Your task to perform on an android device: When is my next appointment? Image 0: 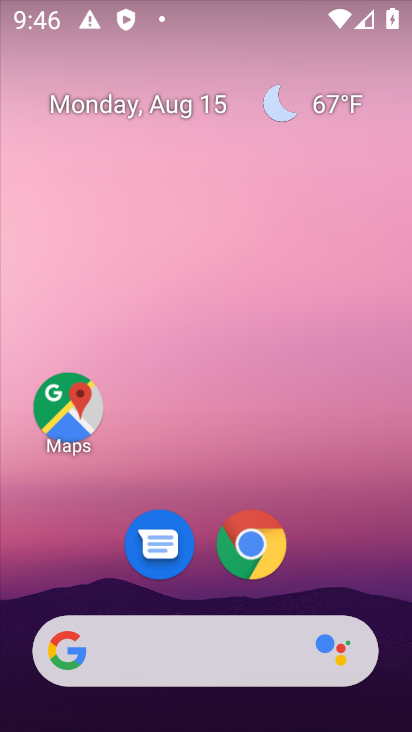
Step 0: drag from (211, 633) to (208, 20)
Your task to perform on an android device: When is my next appointment? Image 1: 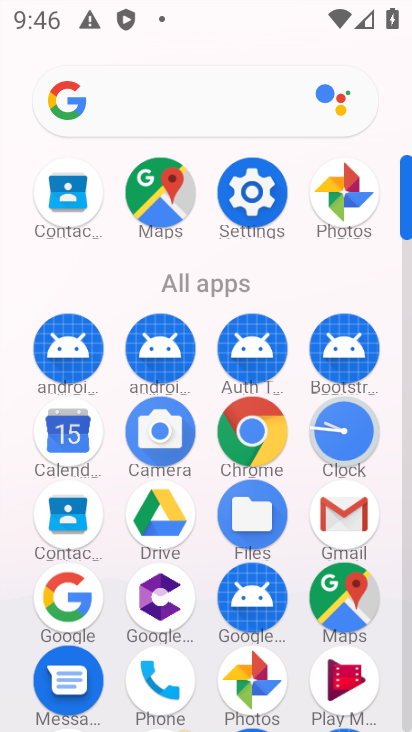
Step 1: click (263, 185)
Your task to perform on an android device: When is my next appointment? Image 2: 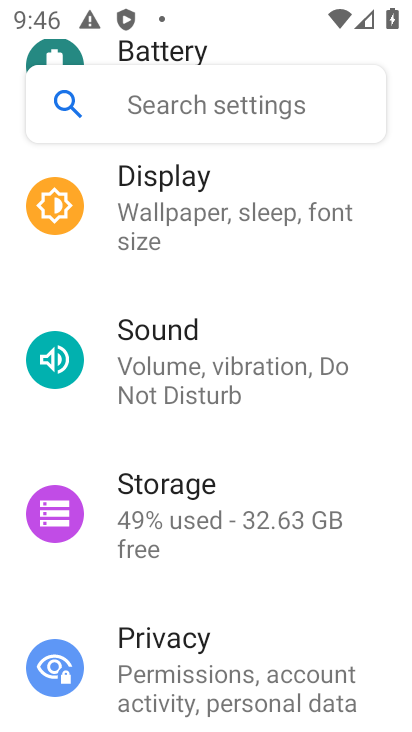
Step 2: press home button
Your task to perform on an android device: When is my next appointment? Image 3: 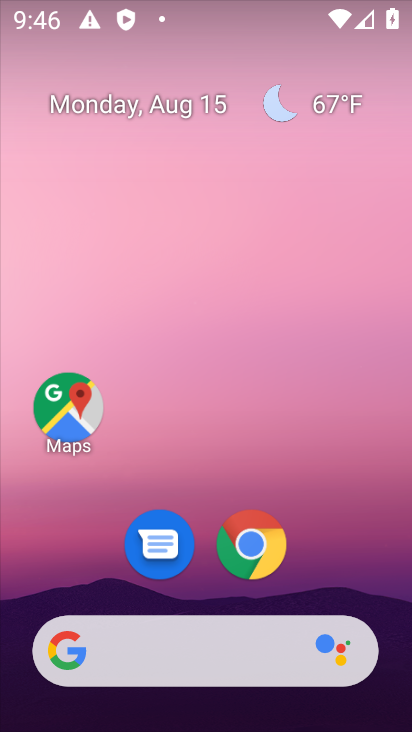
Step 3: drag from (216, 526) to (220, 191)
Your task to perform on an android device: When is my next appointment? Image 4: 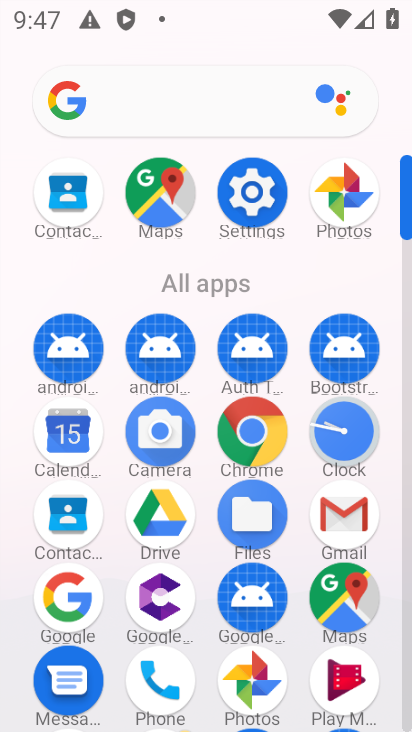
Step 4: click (74, 436)
Your task to perform on an android device: When is my next appointment? Image 5: 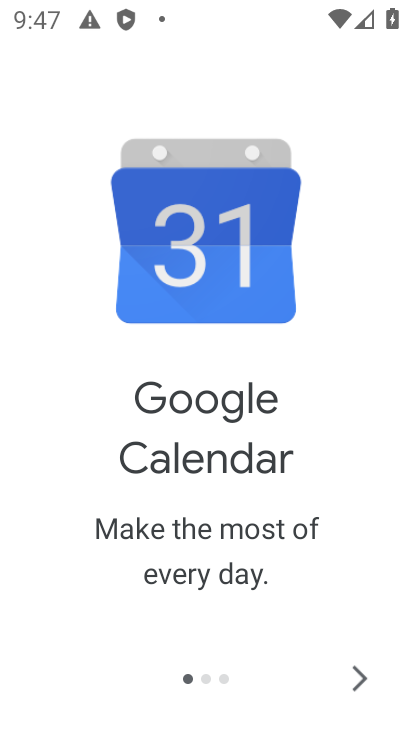
Step 5: click (365, 683)
Your task to perform on an android device: When is my next appointment? Image 6: 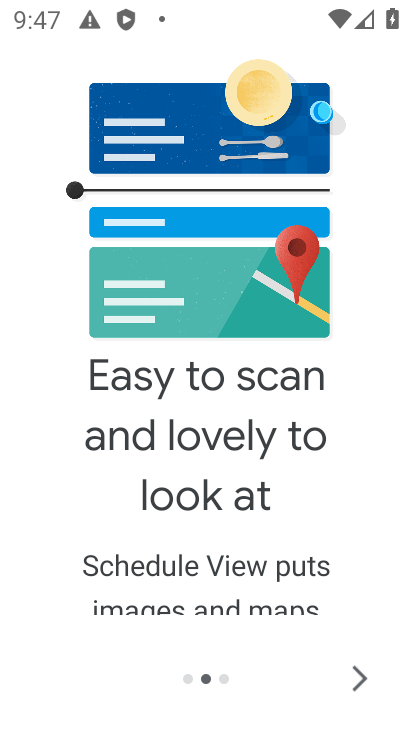
Step 6: click (362, 683)
Your task to perform on an android device: When is my next appointment? Image 7: 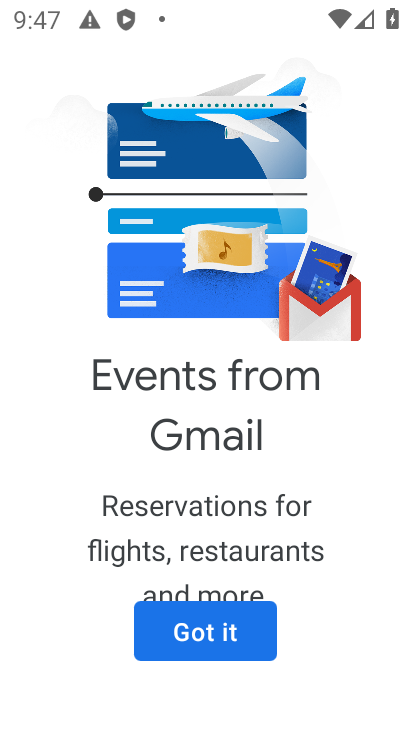
Step 7: click (166, 644)
Your task to perform on an android device: When is my next appointment? Image 8: 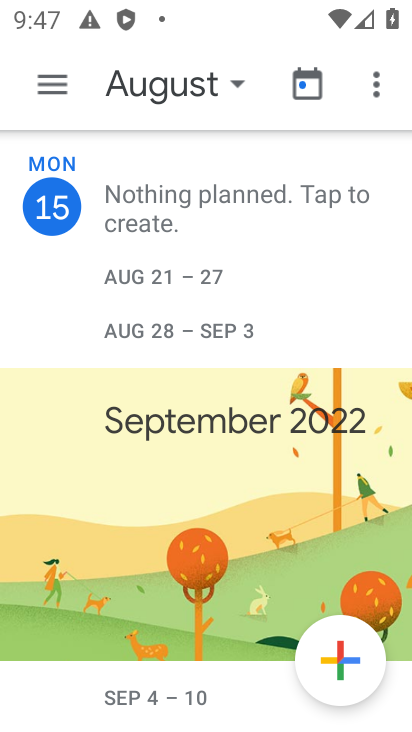
Step 8: task complete